Your task to perform on an android device: When is my next appointment? Image 0: 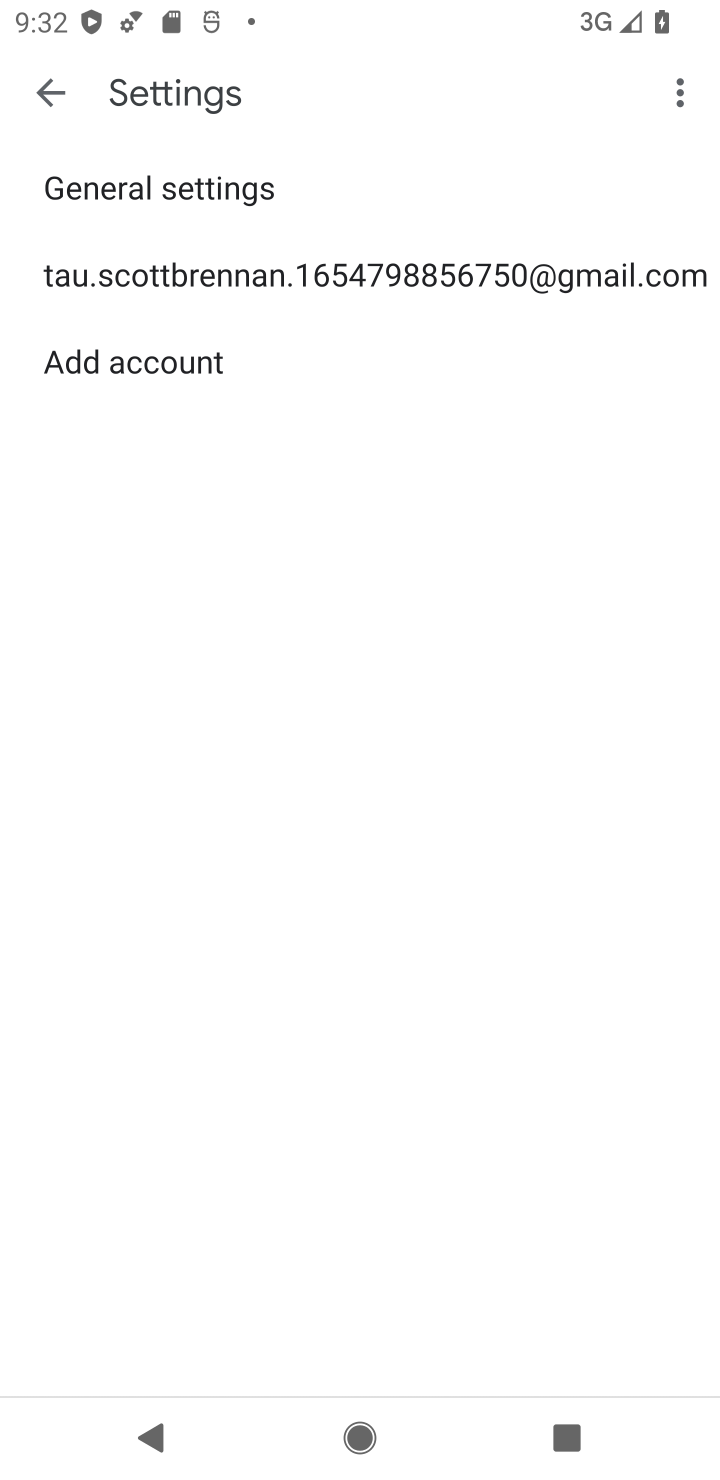
Step 0: press home button
Your task to perform on an android device: When is my next appointment? Image 1: 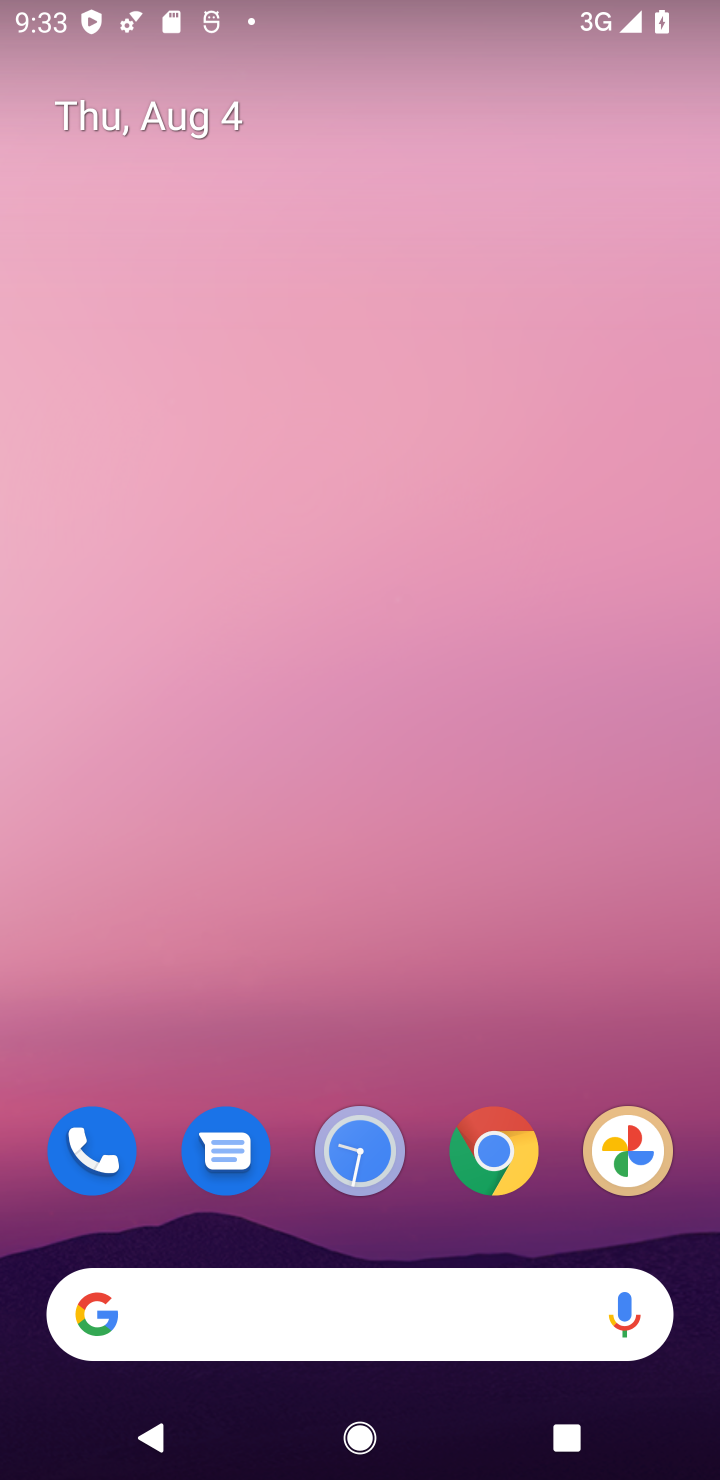
Step 1: drag from (383, 1070) to (316, 260)
Your task to perform on an android device: When is my next appointment? Image 2: 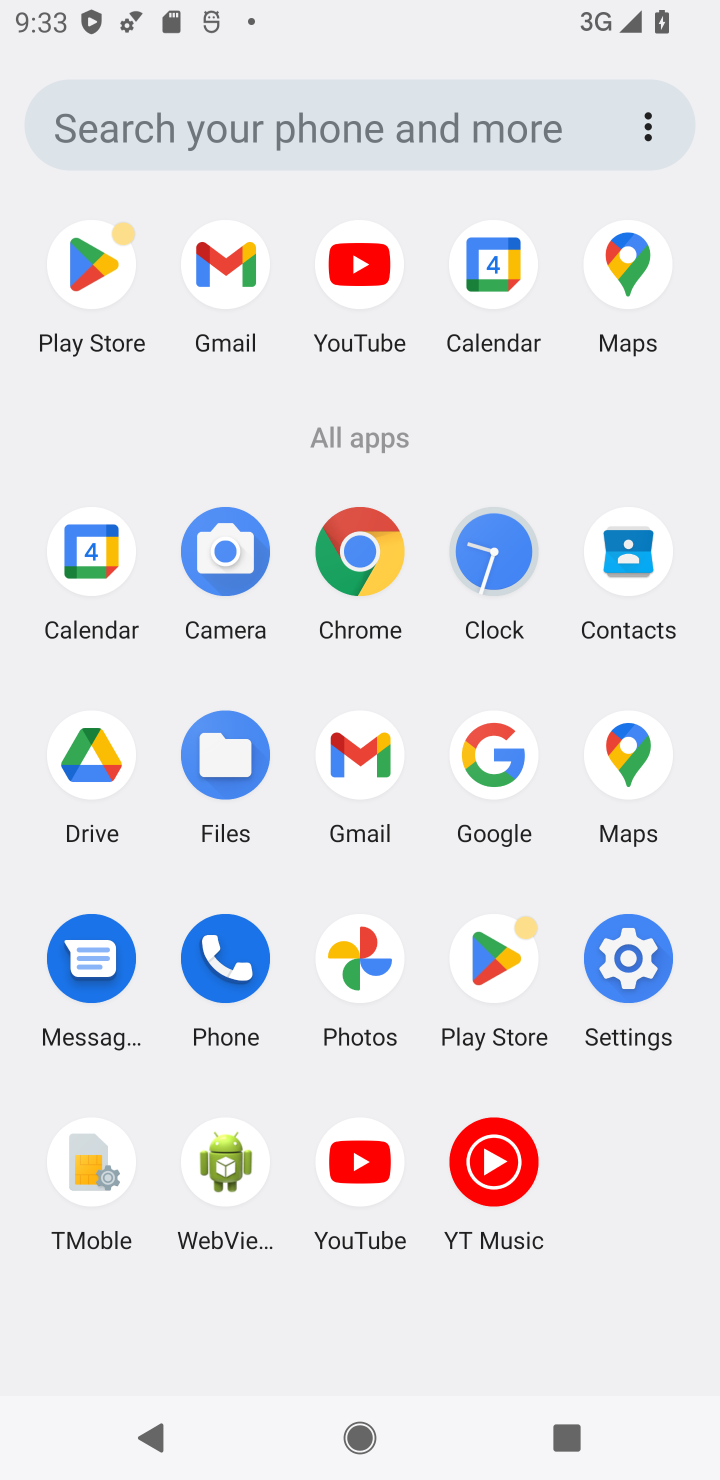
Step 2: click (96, 544)
Your task to perform on an android device: When is my next appointment? Image 3: 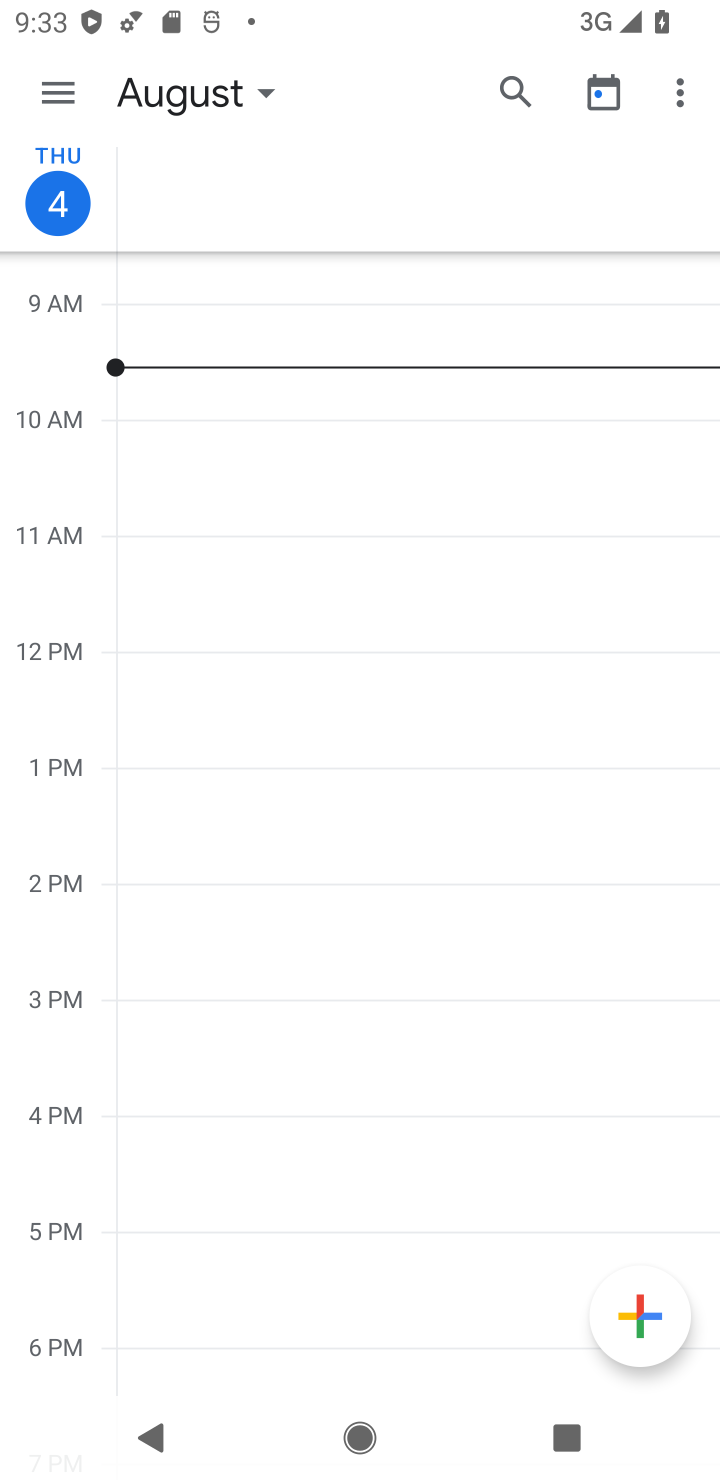
Step 3: click (74, 69)
Your task to perform on an android device: When is my next appointment? Image 4: 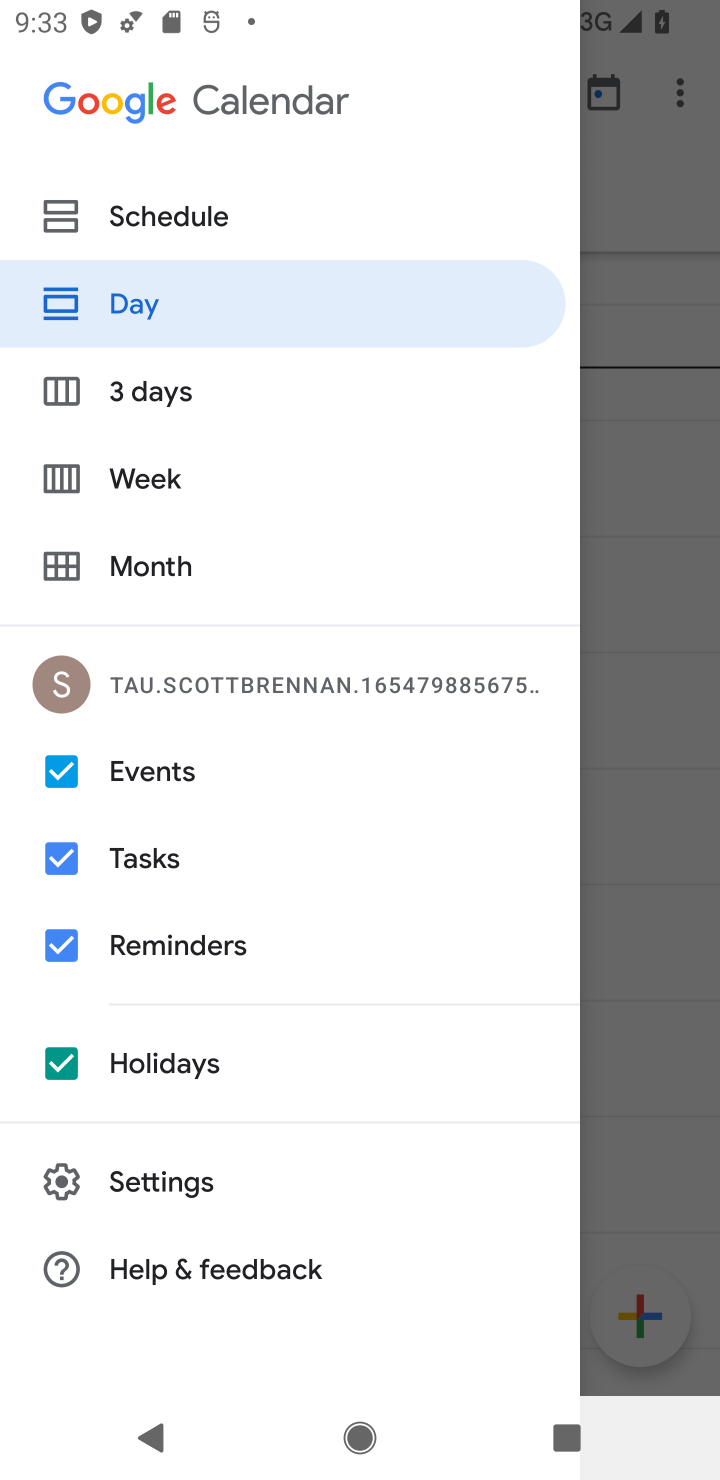
Step 4: click (161, 214)
Your task to perform on an android device: When is my next appointment? Image 5: 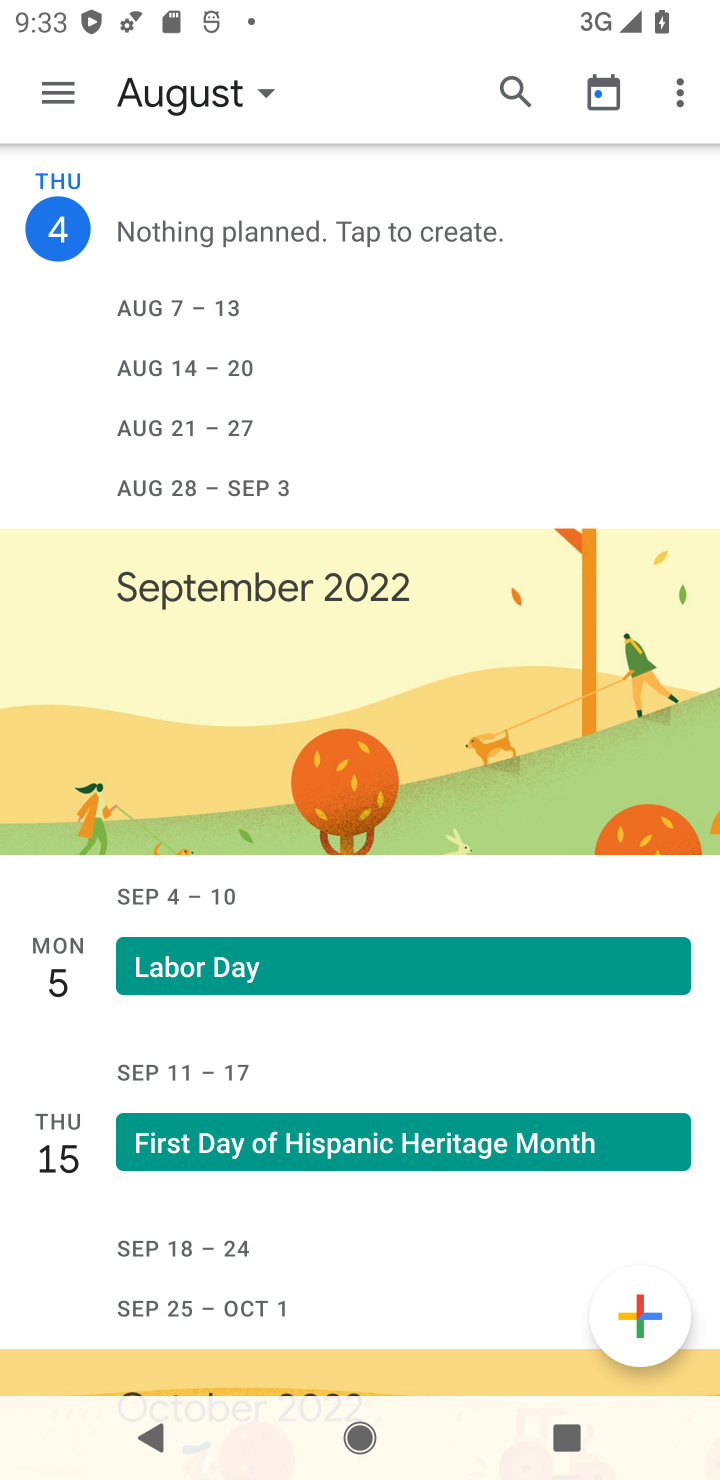
Step 5: task complete